Your task to perform on an android device: What is the news today? Image 0: 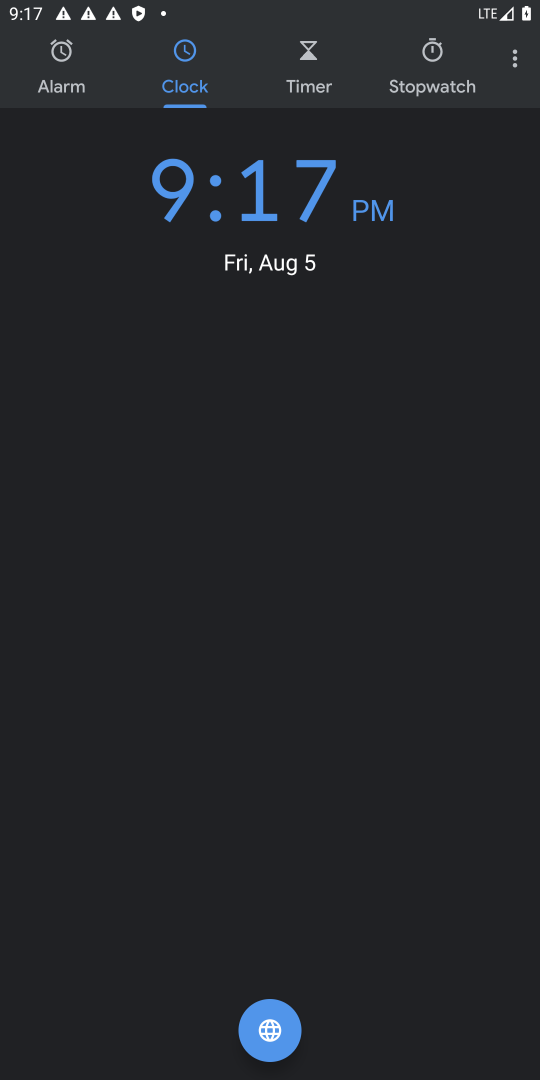
Step 0: press home button
Your task to perform on an android device: What is the news today? Image 1: 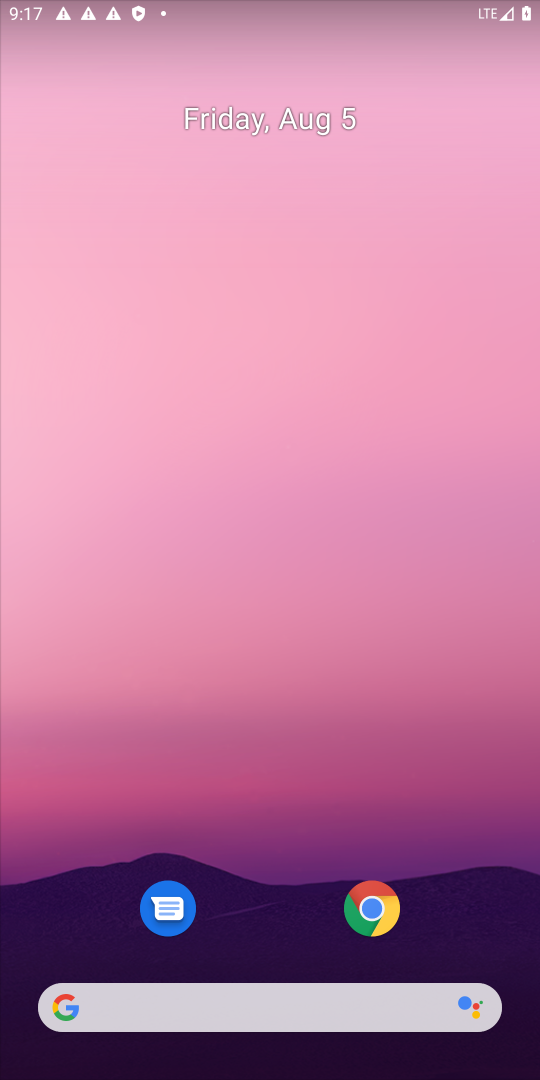
Step 1: click (371, 926)
Your task to perform on an android device: What is the news today? Image 2: 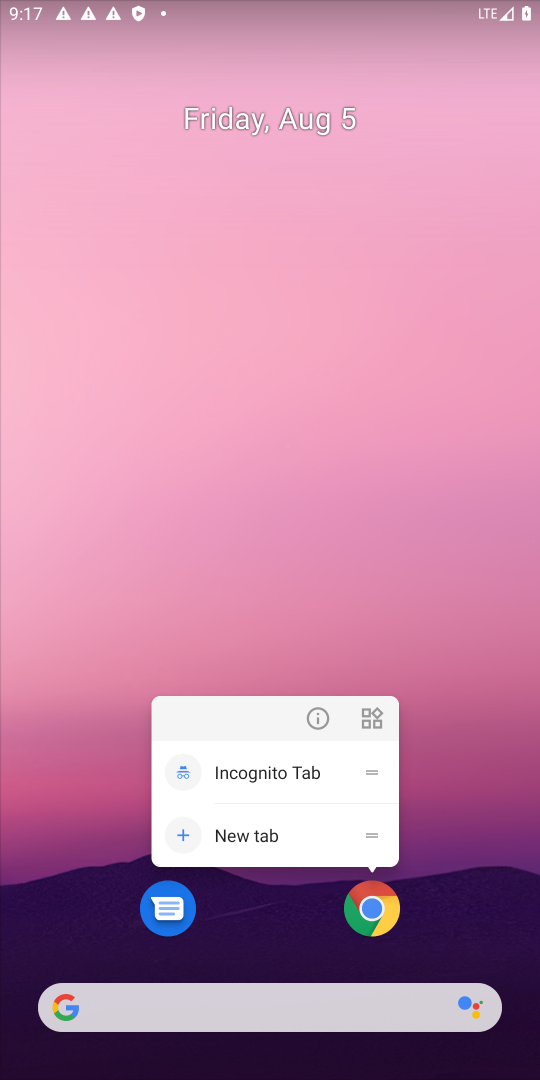
Step 2: click (360, 897)
Your task to perform on an android device: What is the news today? Image 3: 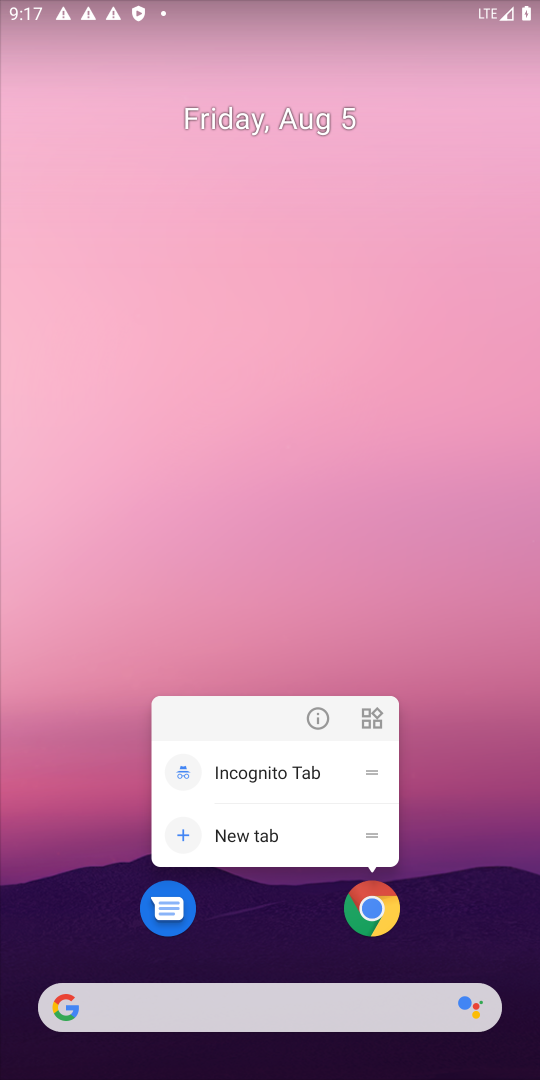
Step 3: click (423, 916)
Your task to perform on an android device: What is the news today? Image 4: 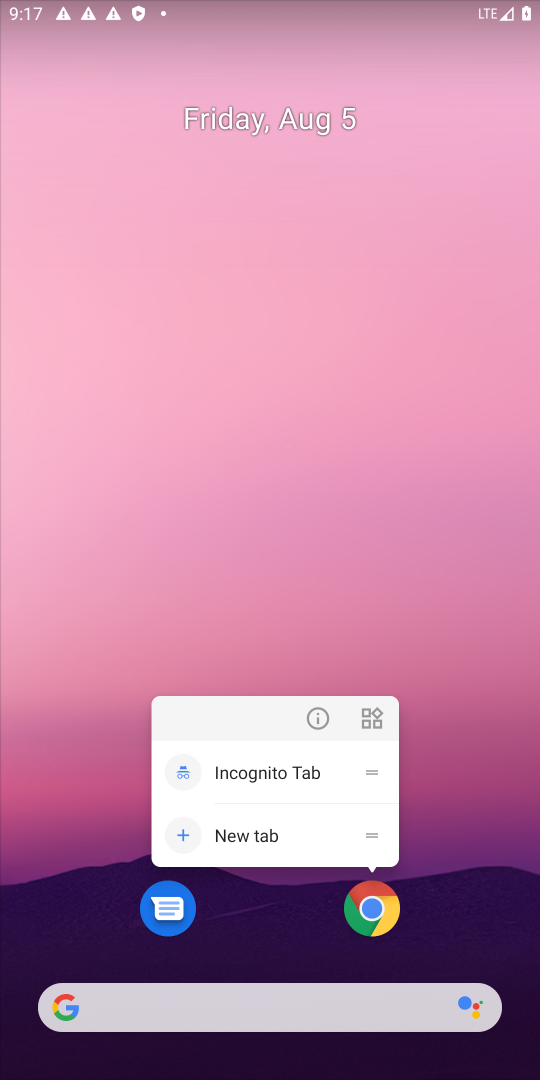
Step 4: click (385, 907)
Your task to perform on an android device: What is the news today? Image 5: 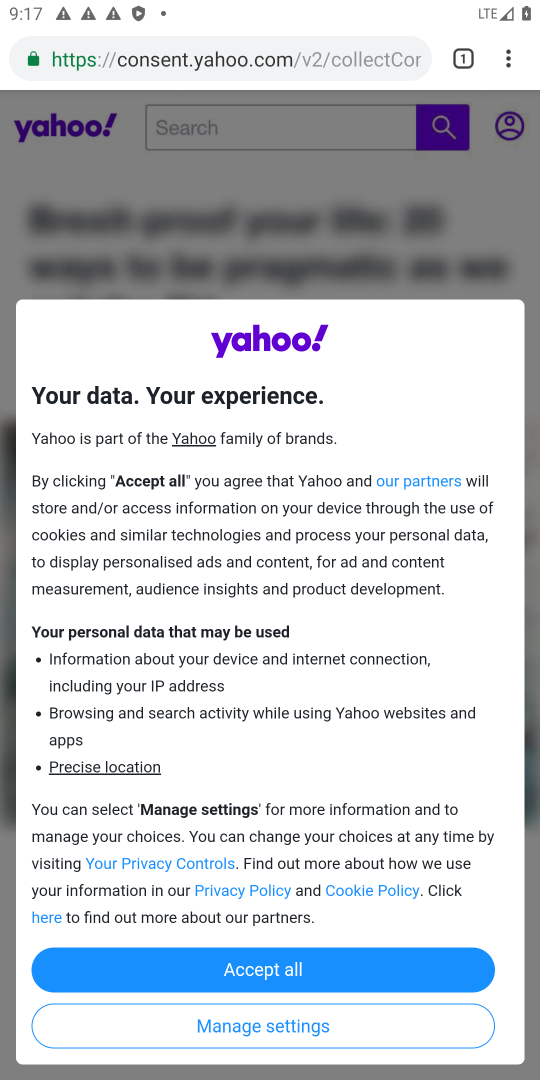
Step 5: click (292, 58)
Your task to perform on an android device: What is the news today? Image 6: 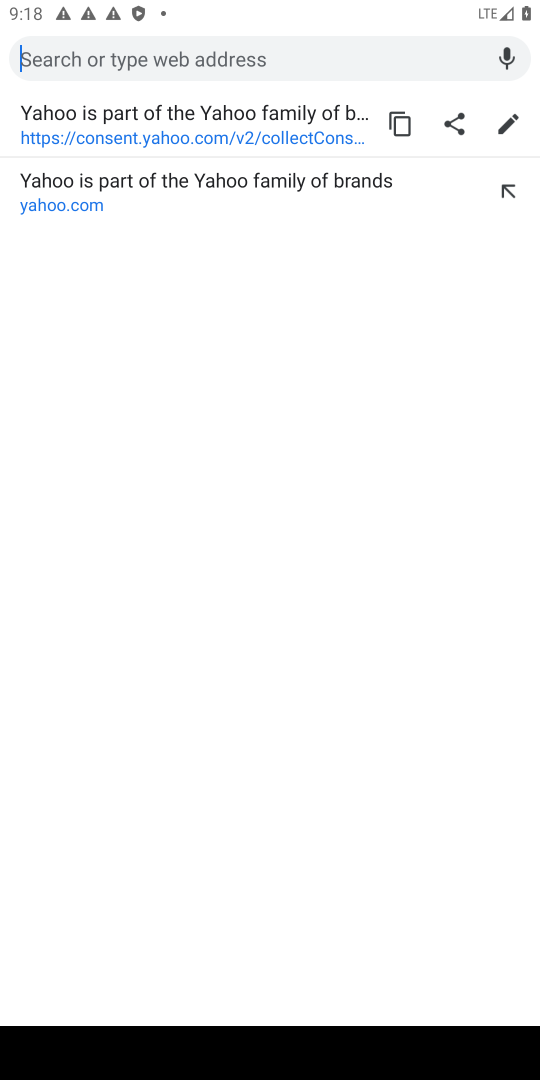
Step 6: type "What is the news today?"
Your task to perform on an android device: What is the news today? Image 7: 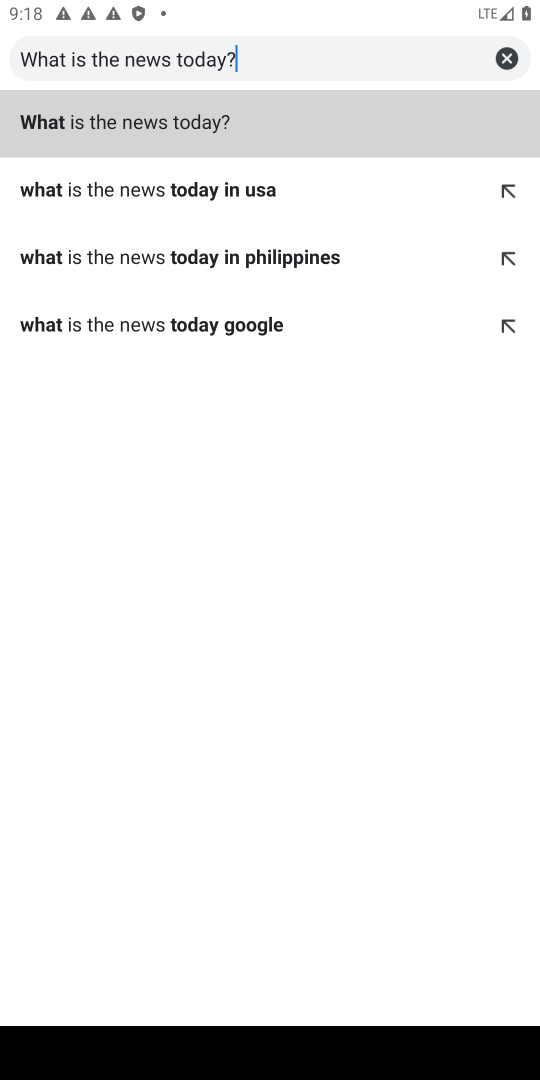
Step 7: type "\"
Your task to perform on an android device: What is the news today? Image 8: 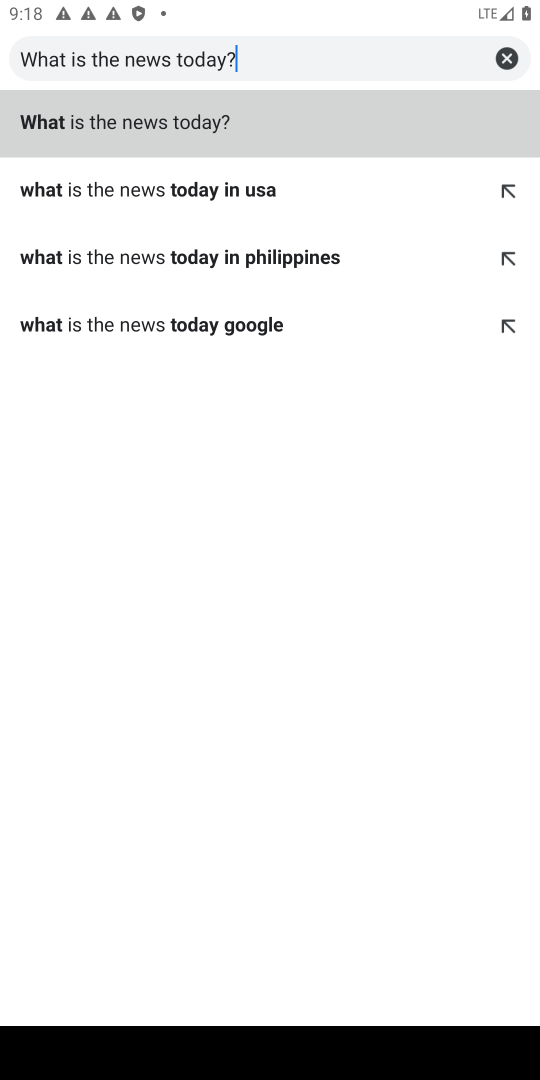
Step 8: click (121, 123)
Your task to perform on an android device: What is the news today? Image 9: 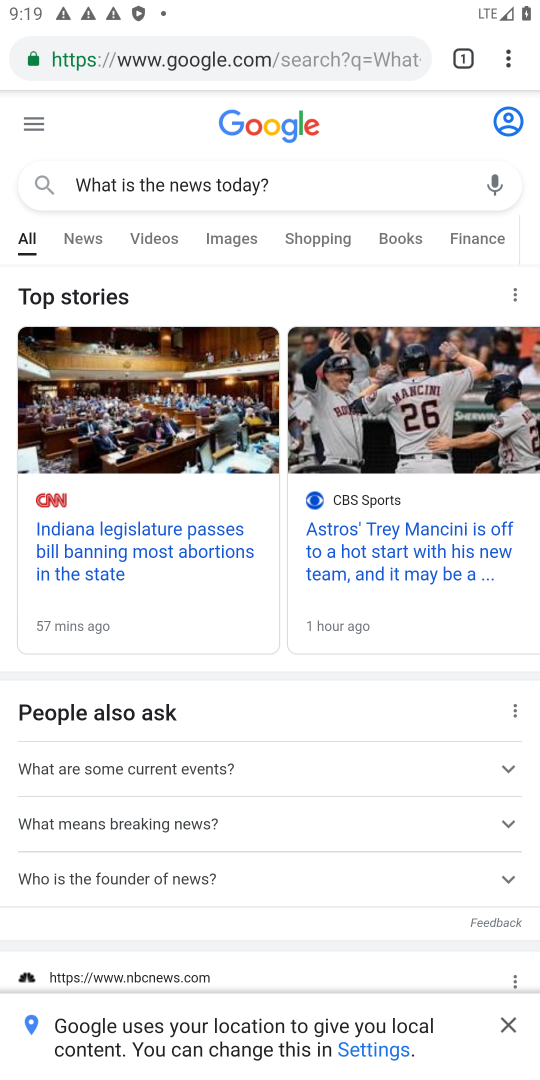
Step 9: task complete